Your task to perform on an android device: delete location history Image 0: 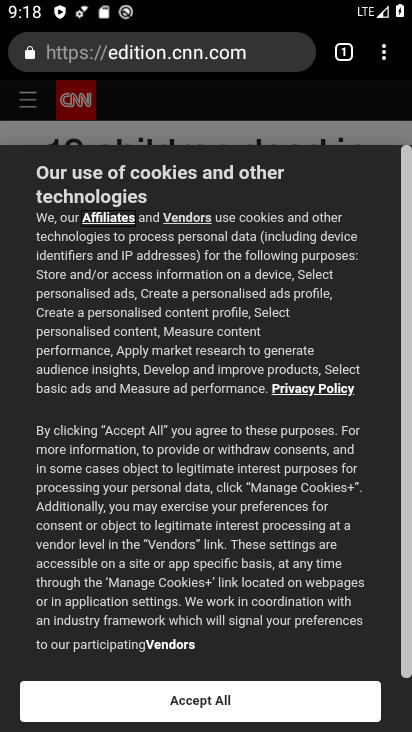
Step 0: press home button
Your task to perform on an android device: delete location history Image 1: 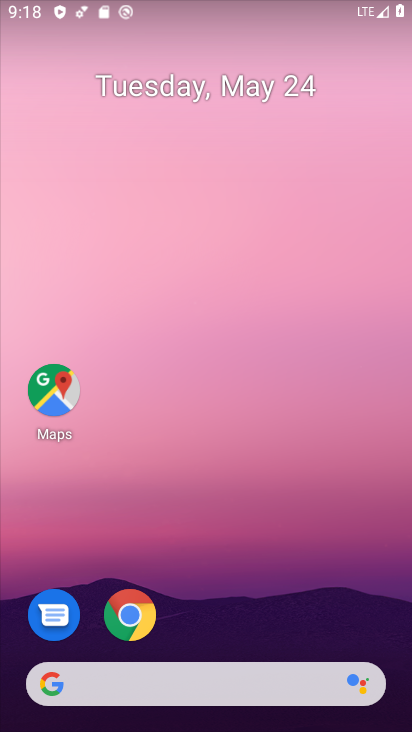
Step 1: drag from (285, 651) to (178, 1)
Your task to perform on an android device: delete location history Image 2: 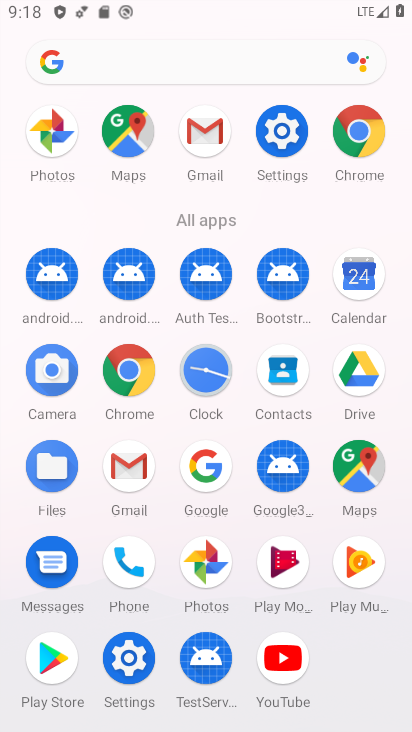
Step 2: click (356, 466)
Your task to perform on an android device: delete location history Image 3: 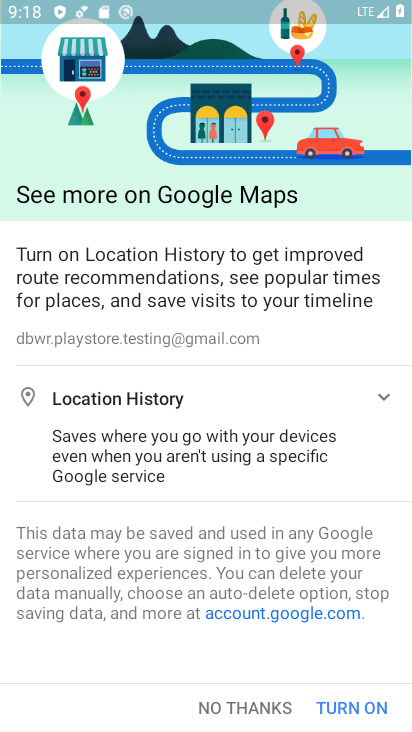
Step 3: click (206, 706)
Your task to perform on an android device: delete location history Image 4: 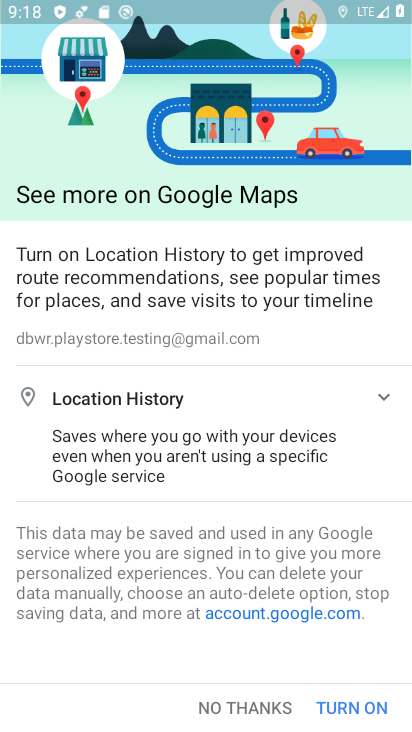
Step 4: drag from (226, 712) to (335, 711)
Your task to perform on an android device: delete location history Image 5: 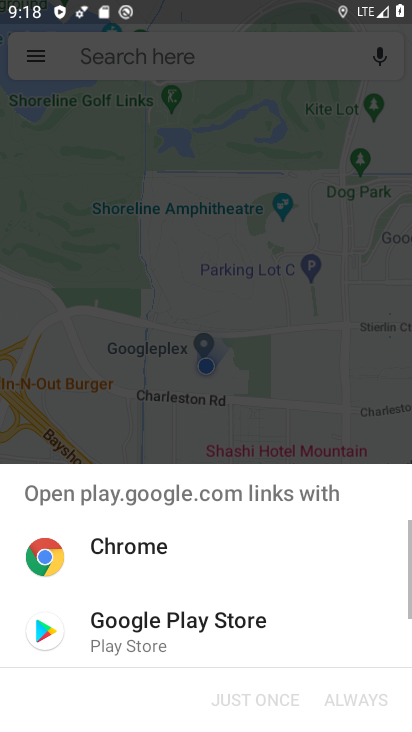
Step 5: click (39, 54)
Your task to perform on an android device: delete location history Image 6: 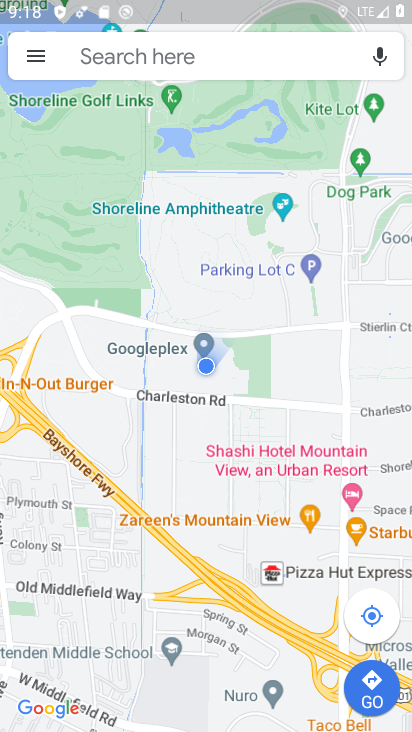
Step 6: click (40, 62)
Your task to perform on an android device: delete location history Image 7: 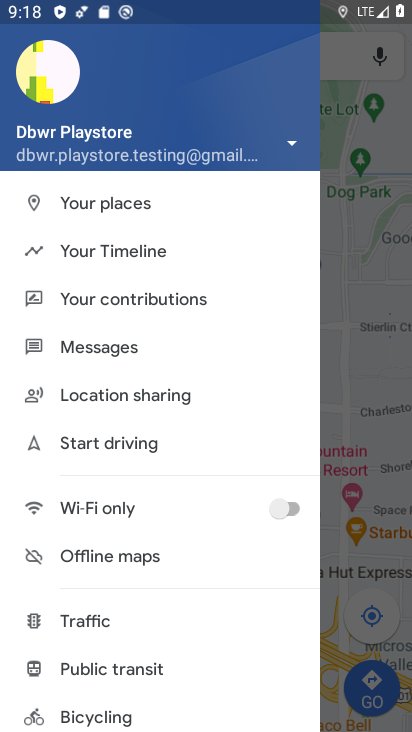
Step 7: click (106, 257)
Your task to perform on an android device: delete location history Image 8: 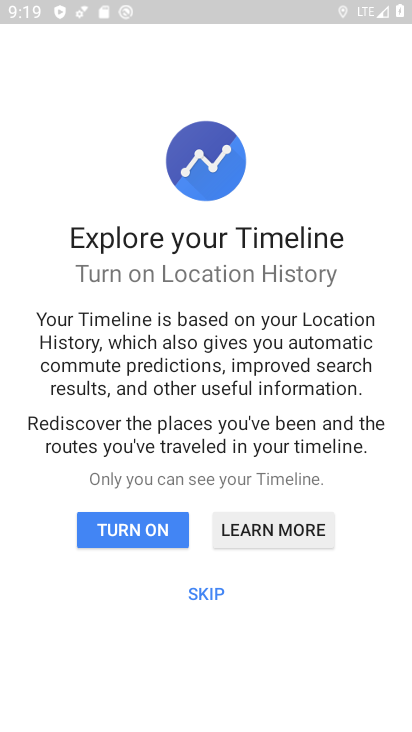
Step 8: click (209, 607)
Your task to perform on an android device: delete location history Image 9: 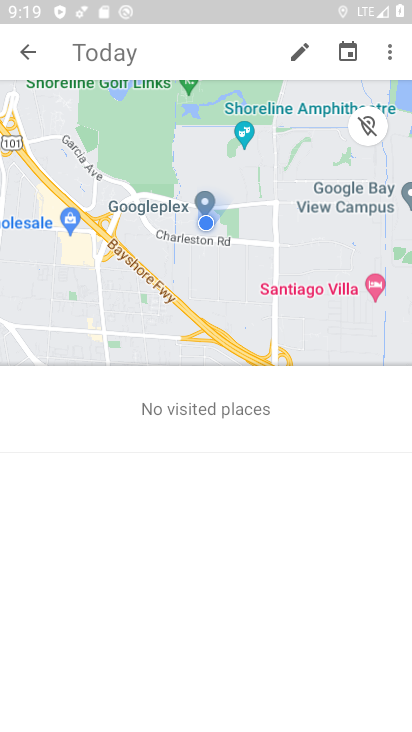
Step 9: click (394, 55)
Your task to perform on an android device: delete location history Image 10: 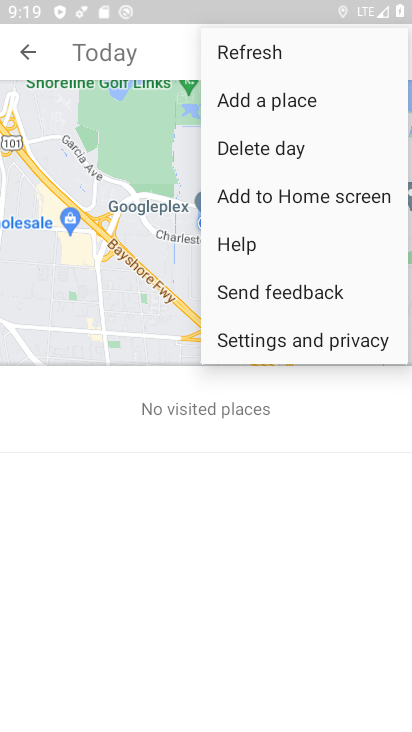
Step 10: click (270, 338)
Your task to perform on an android device: delete location history Image 11: 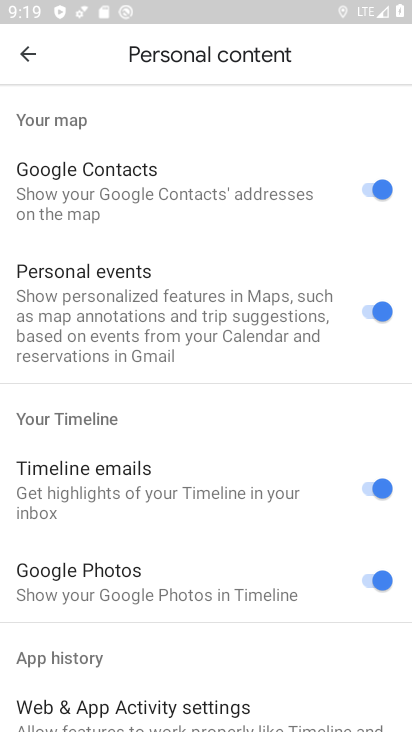
Step 11: drag from (162, 647) to (118, 242)
Your task to perform on an android device: delete location history Image 12: 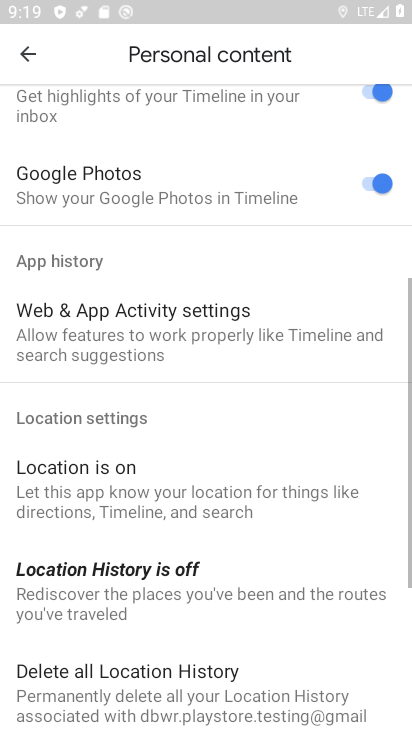
Step 12: click (148, 705)
Your task to perform on an android device: delete location history Image 13: 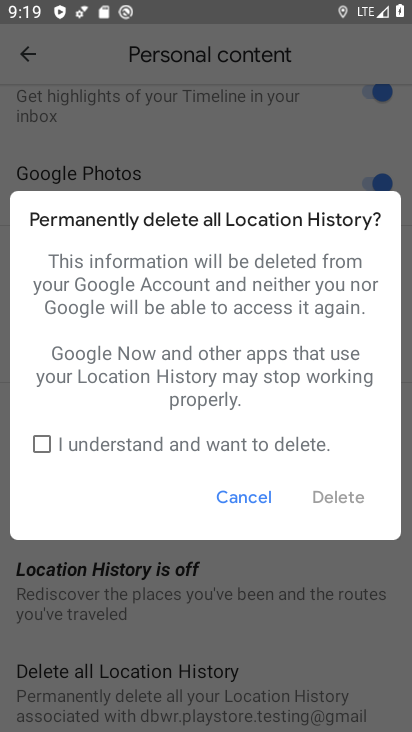
Step 13: click (38, 443)
Your task to perform on an android device: delete location history Image 14: 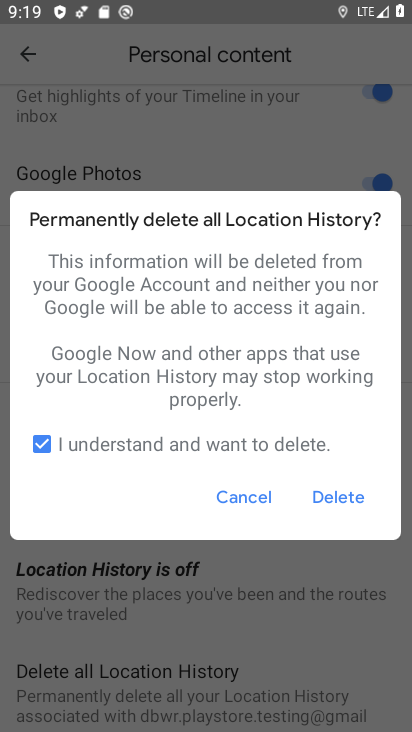
Step 14: click (323, 503)
Your task to perform on an android device: delete location history Image 15: 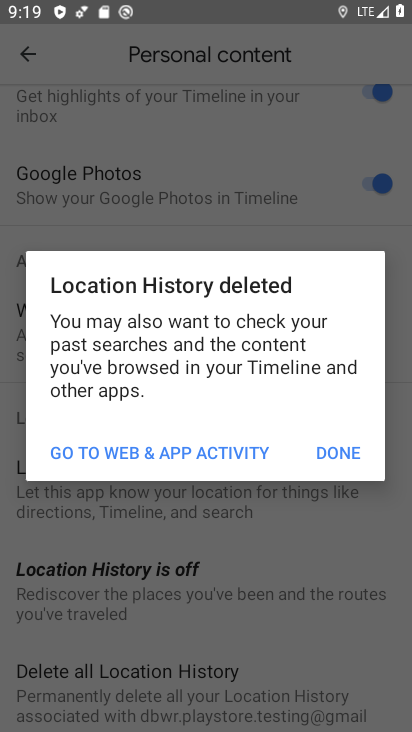
Step 15: click (327, 452)
Your task to perform on an android device: delete location history Image 16: 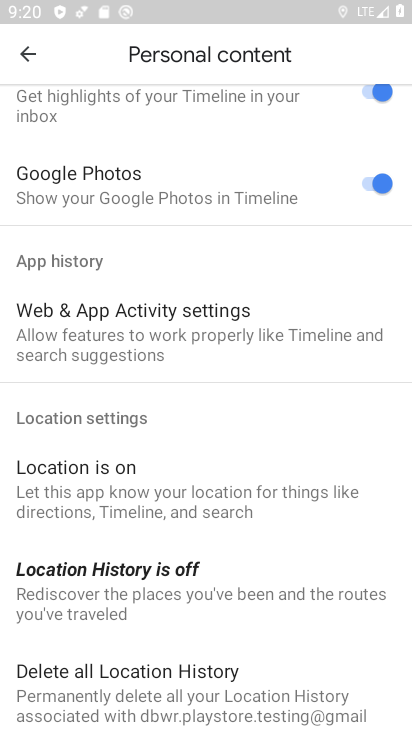
Step 16: task complete